Your task to perform on an android device: allow cookies in the chrome app Image 0: 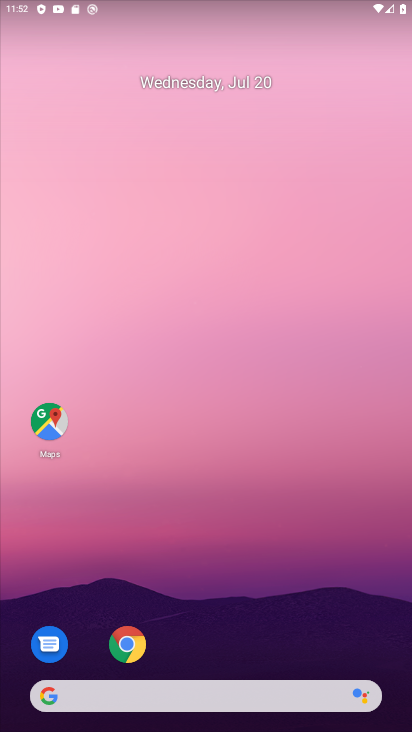
Step 0: click (127, 642)
Your task to perform on an android device: allow cookies in the chrome app Image 1: 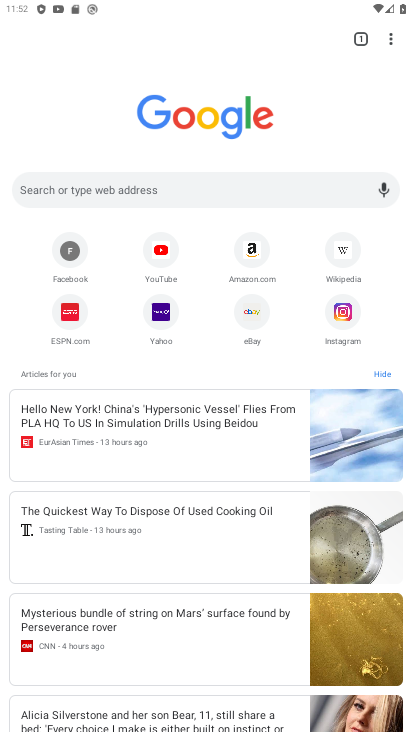
Step 1: click (388, 40)
Your task to perform on an android device: allow cookies in the chrome app Image 2: 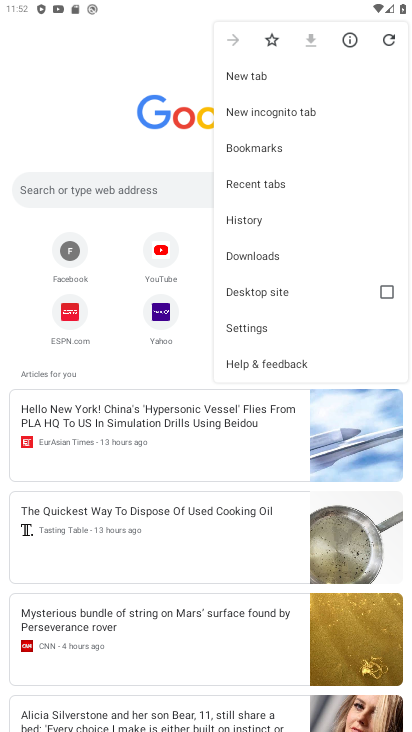
Step 2: click (250, 331)
Your task to perform on an android device: allow cookies in the chrome app Image 3: 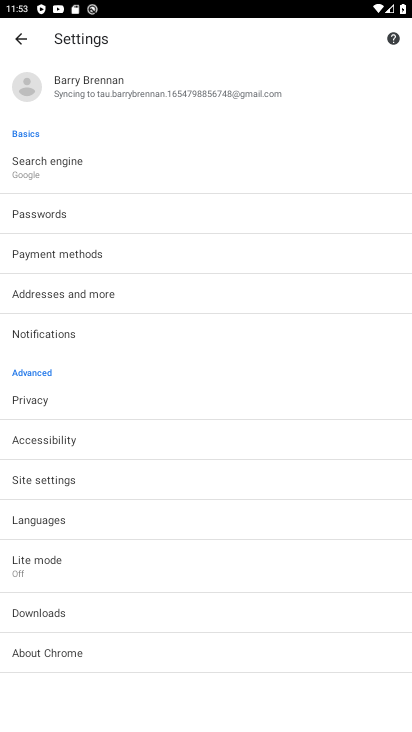
Step 3: click (49, 480)
Your task to perform on an android device: allow cookies in the chrome app Image 4: 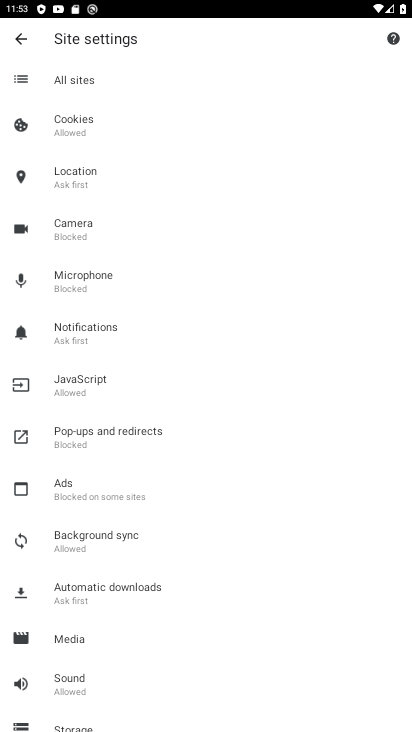
Step 4: click (59, 111)
Your task to perform on an android device: allow cookies in the chrome app Image 5: 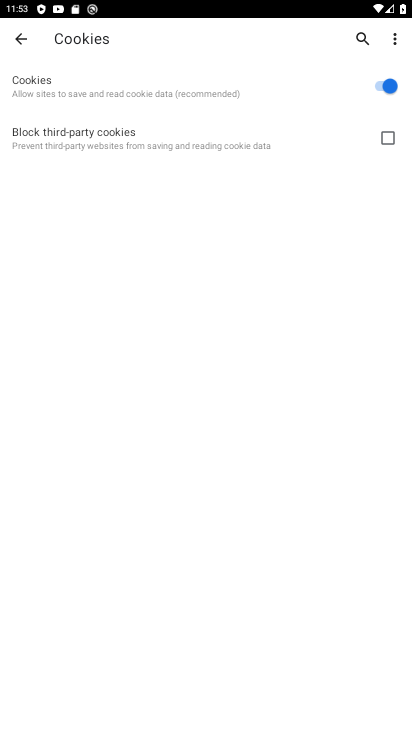
Step 5: task complete